Your task to perform on an android device: Set the phone to "Do not disturb". Image 0: 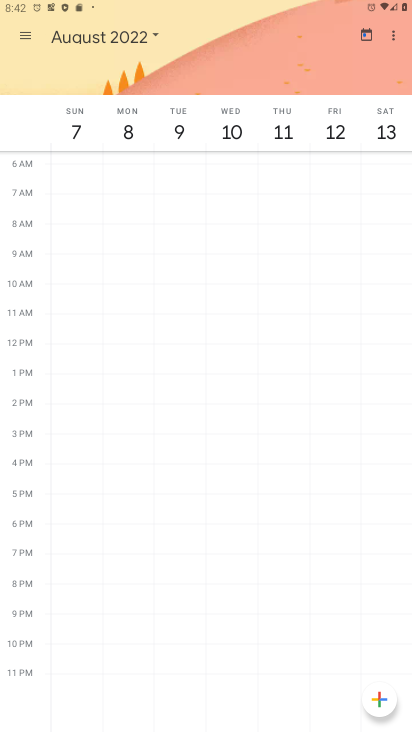
Step 0: press home button
Your task to perform on an android device: Set the phone to "Do not disturb". Image 1: 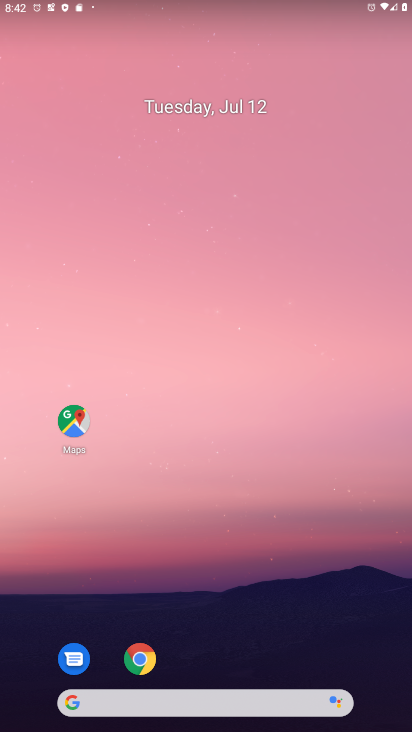
Step 1: drag from (165, 704) to (175, 112)
Your task to perform on an android device: Set the phone to "Do not disturb". Image 2: 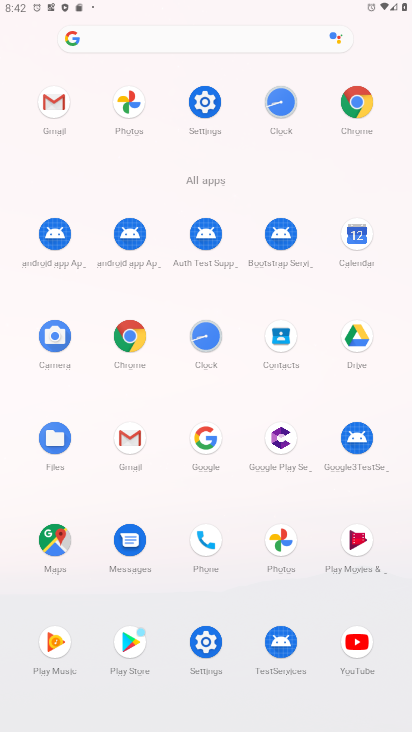
Step 2: click (204, 100)
Your task to perform on an android device: Set the phone to "Do not disturb". Image 3: 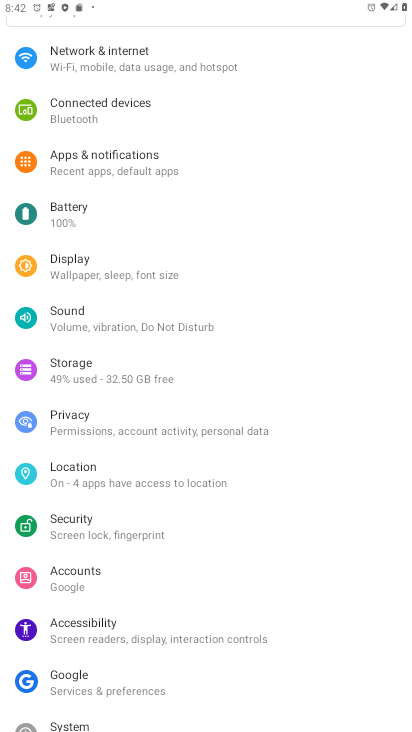
Step 3: click (145, 325)
Your task to perform on an android device: Set the phone to "Do not disturb". Image 4: 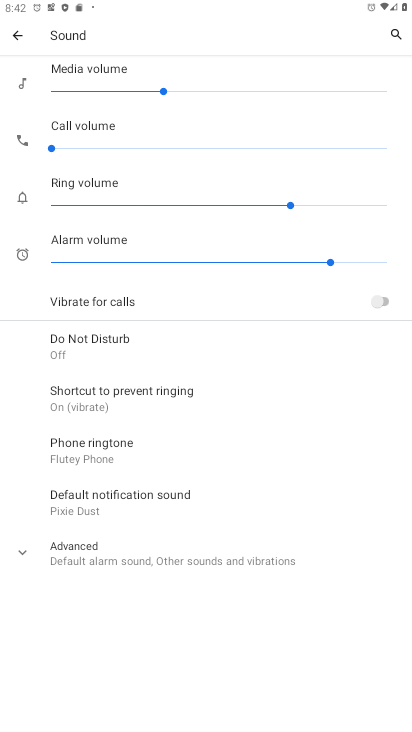
Step 4: click (114, 348)
Your task to perform on an android device: Set the phone to "Do not disturb". Image 5: 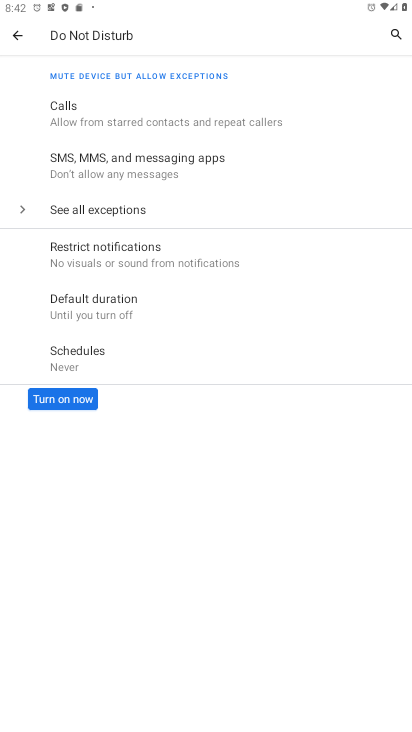
Step 5: click (63, 404)
Your task to perform on an android device: Set the phone to "Do not disturb". Image 6: 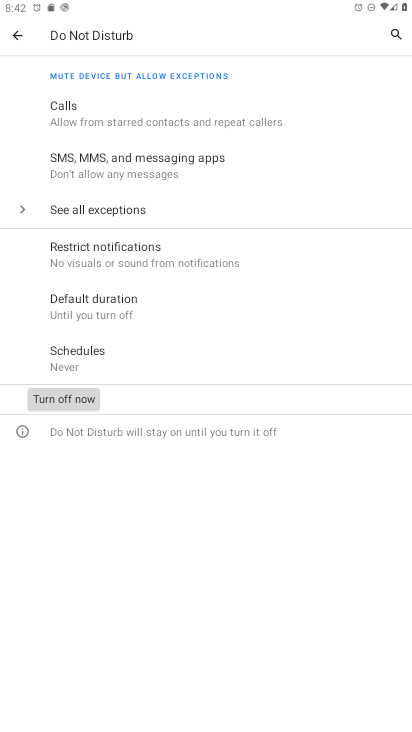
Step 6: task complete